Your task to perform on an android device: choose inbox layout in the gmail app Image 0: 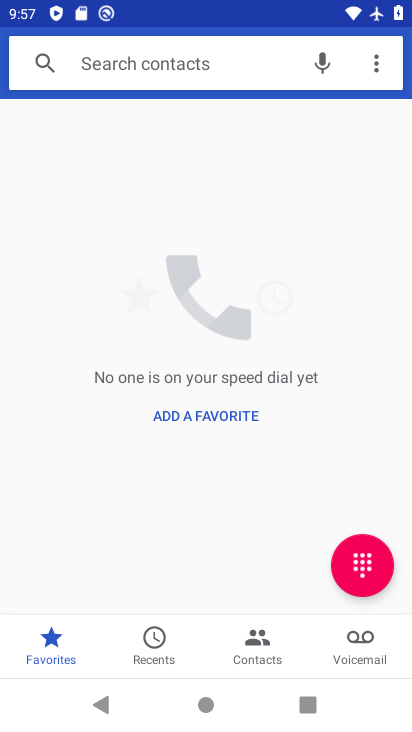
Step 0: press back button
Your task to perform on an android device: choose inbox layout in the gmail app Image 1: 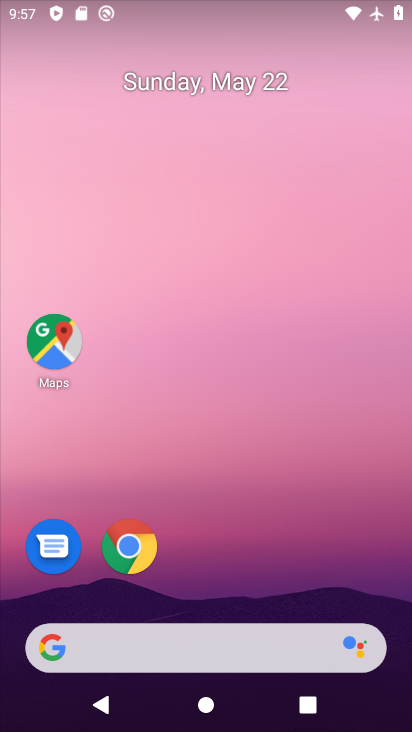
Step 1: drag from (268, 552) to (236, 43)
Your task to perform on an android device: choose inbox layout in the gmail app Image 2: 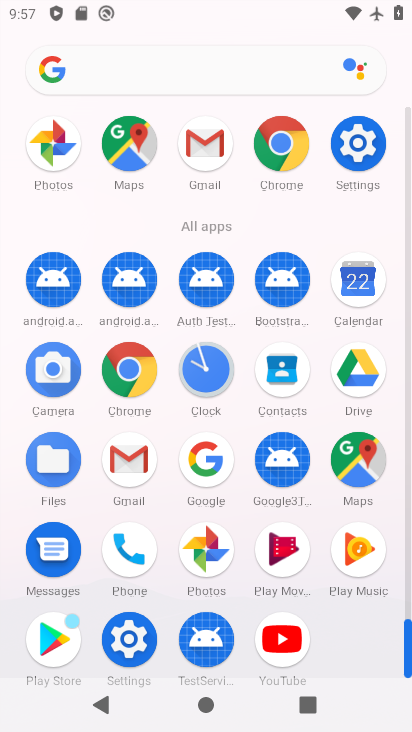
Step 2: click (203, 138)
Your task to perform on an android device: choose inbox layout in the gmail app Image 3: 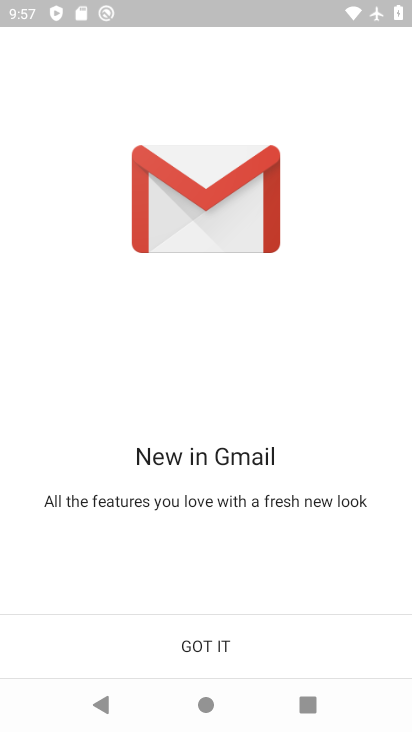
Step 3: click (205, 643)
Your task to perform on an android device: choose inbox layout in the gmail app Image 4: 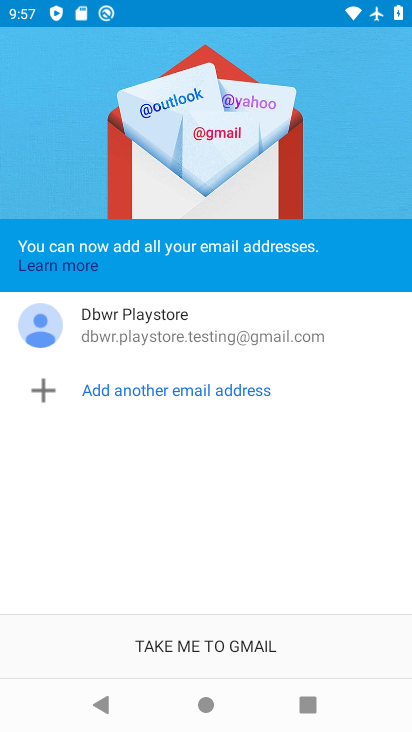
Step 4: click (203, 645)
Your task to perform on an android device: choose inbox layout in the gmail app Image 5: 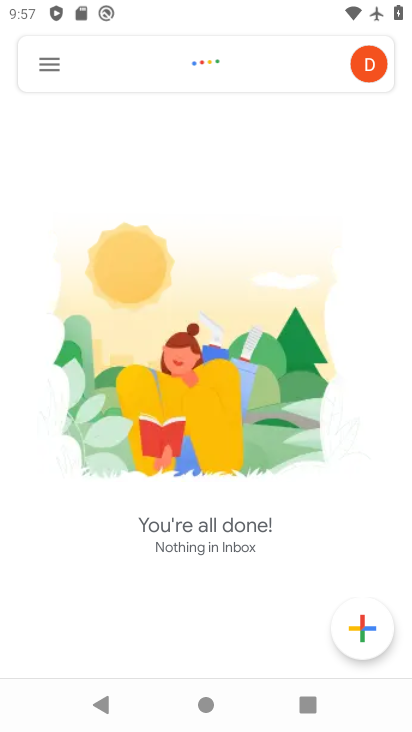
Step 5: click (42, 61)
Your task to perform on an android device: choose inbox layout in the gmail app Image 6: 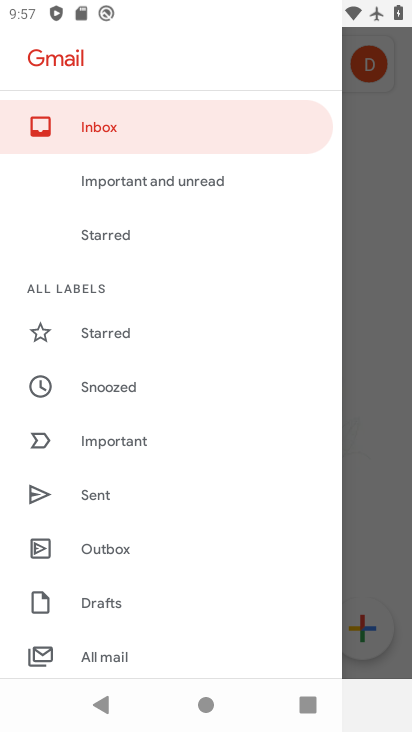
Step 6: drag from (209, 540) to (200, 119)
Your task to perform on an android device: choose inbox layout in the gmail app Image 7: 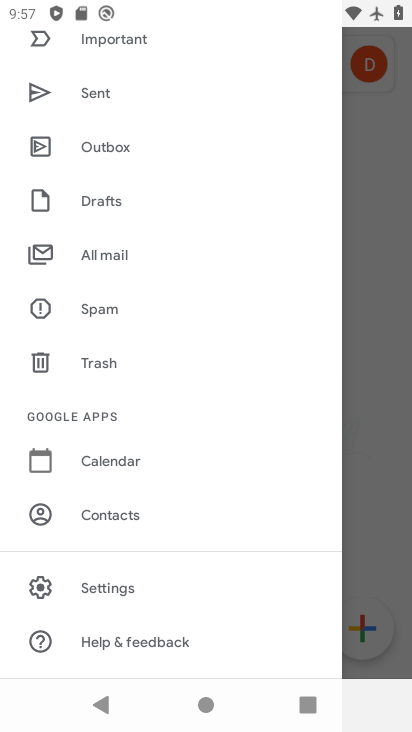
Step 7: click (139, 588)
Your task to perform on an android device: choose inbox layout in the gmail app Image 8: 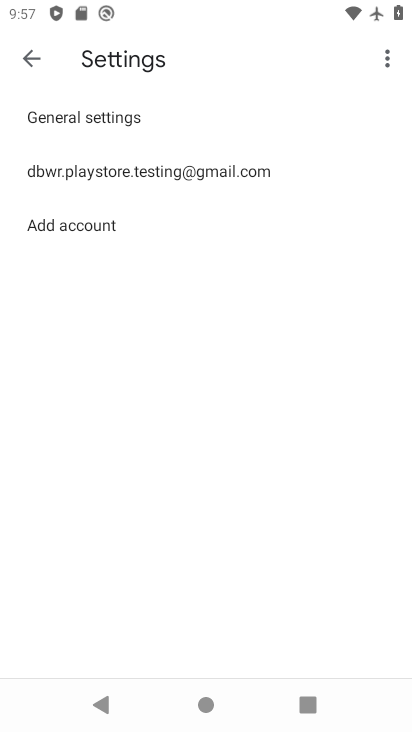
Step 8: click (118, 164)
Your task to perform on an android device: choose inbox layout in the gmail app Image 9: 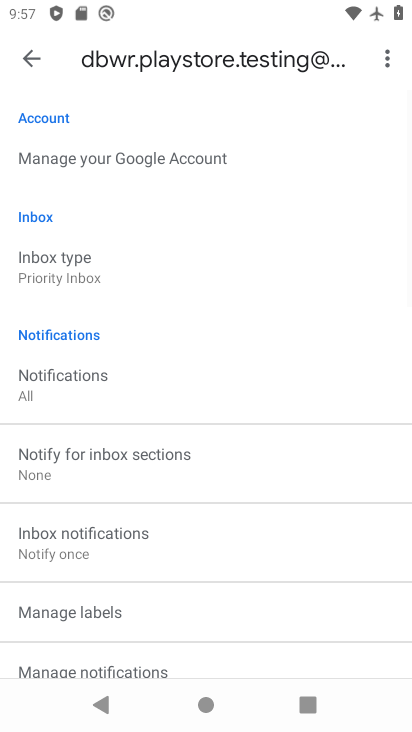
Step 9: drag from (191, 577) to (213, 148)
Your task to perform on an android device: choose inbox layout in the gmail app Image 10: 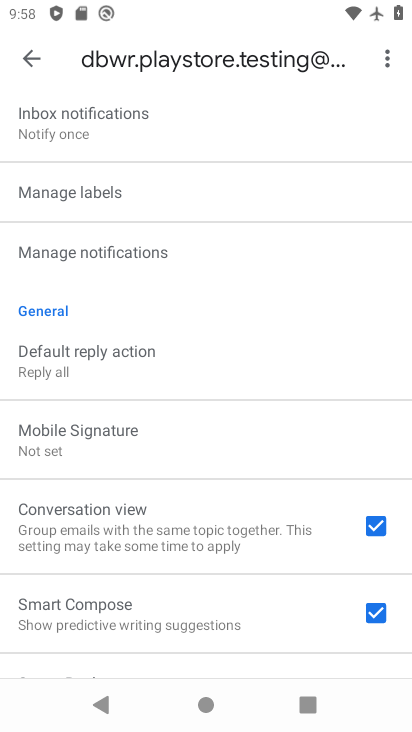
Step 10: click (121, 252)
Your task to perform on an android device: choose inbox layout in the gmail app Image 11: 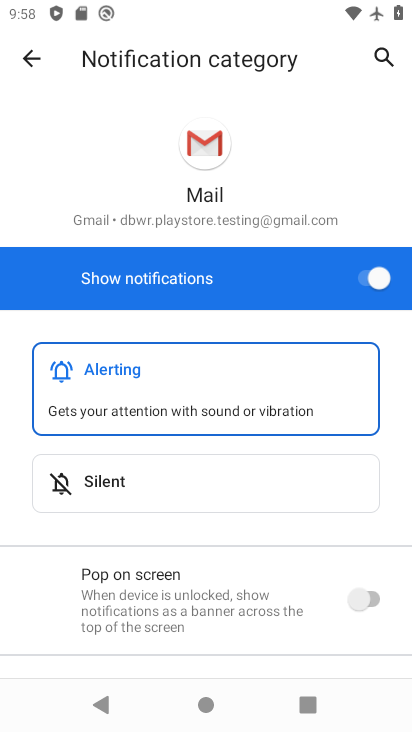
Step 11: drag from (222, 615) to (253, 163)
Your task to perform on an android device: choose inbox layout in the gmail app Image 12: 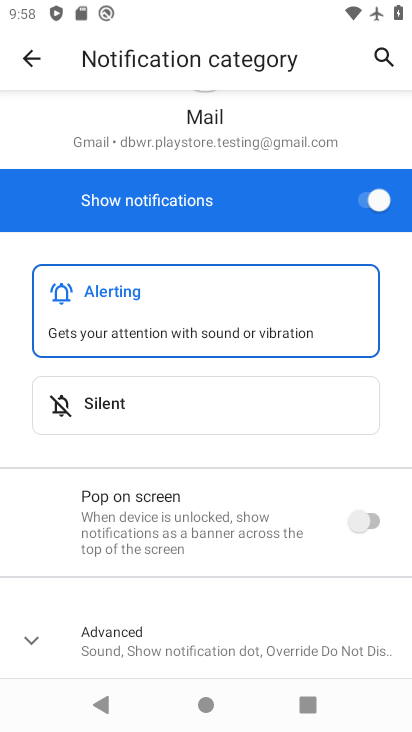
Step 12: click (47, 643)
Your task to perform on an android device: choose inbox layout in the gmail app Image 13: 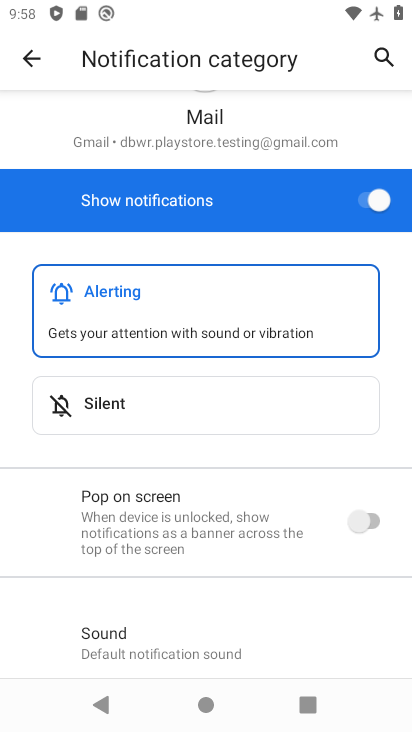
Step 13: click (31, 60)
Your task to perform on an android device: choose inbox layout in the gmail app Image 14: 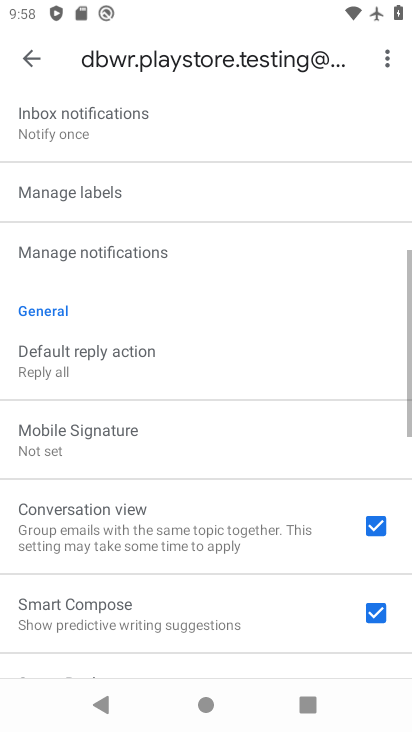
Step 14: drag from (237, 184) to (239, 515)
Your task to perform on an android device: choose inbox layout in the gmail app Image 15: 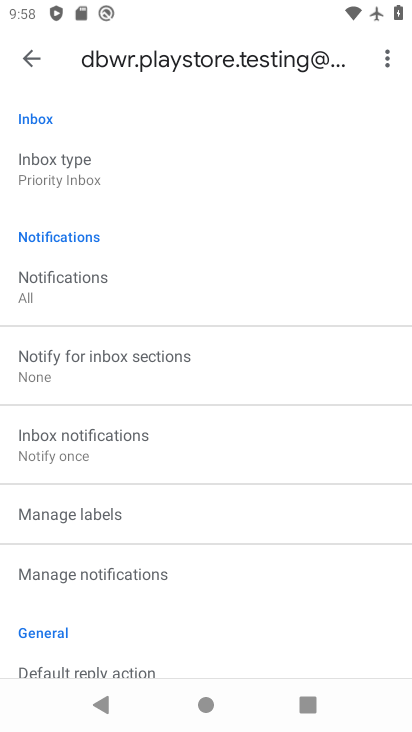
Step 15: click (94, 168)
Your task to perform on an android device: choose inbox layout in the gmail app Image 16: 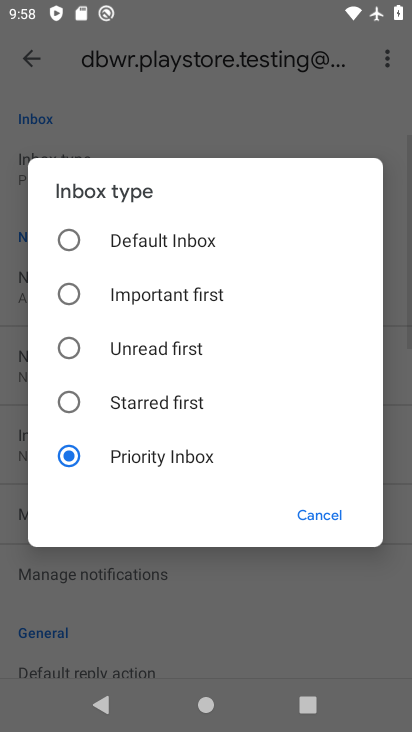
Step 16: click (142, 243)
Your task to perform on an android device: choose inbox layout in the gmail app Image 17: 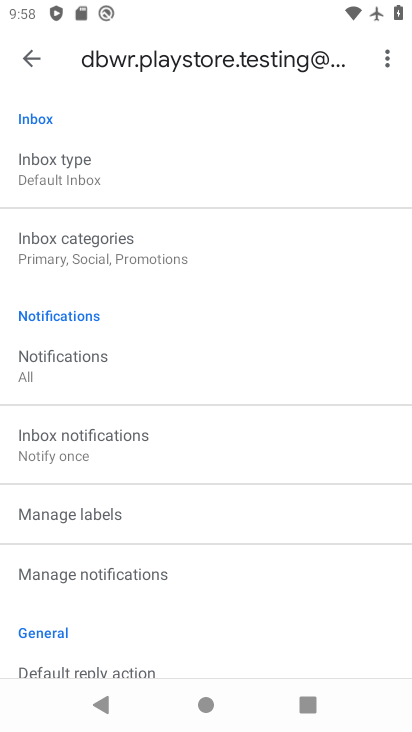
Step 17: task complete